Your task to perform on an android device: Open Google Chrome Image 0: 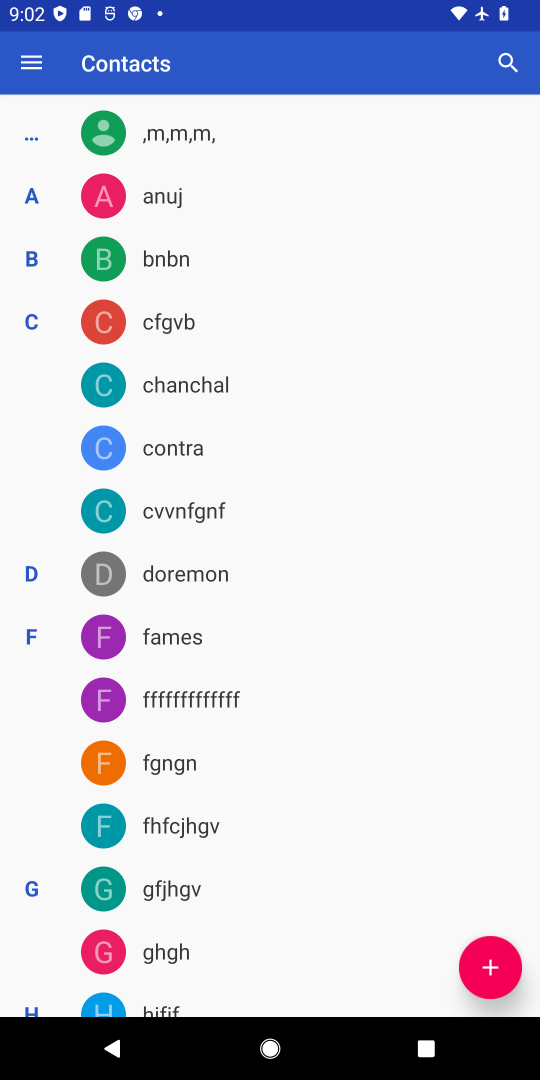
Step 0: press home button
Your task to perform on an android device: Open Google Chrome Image 1: 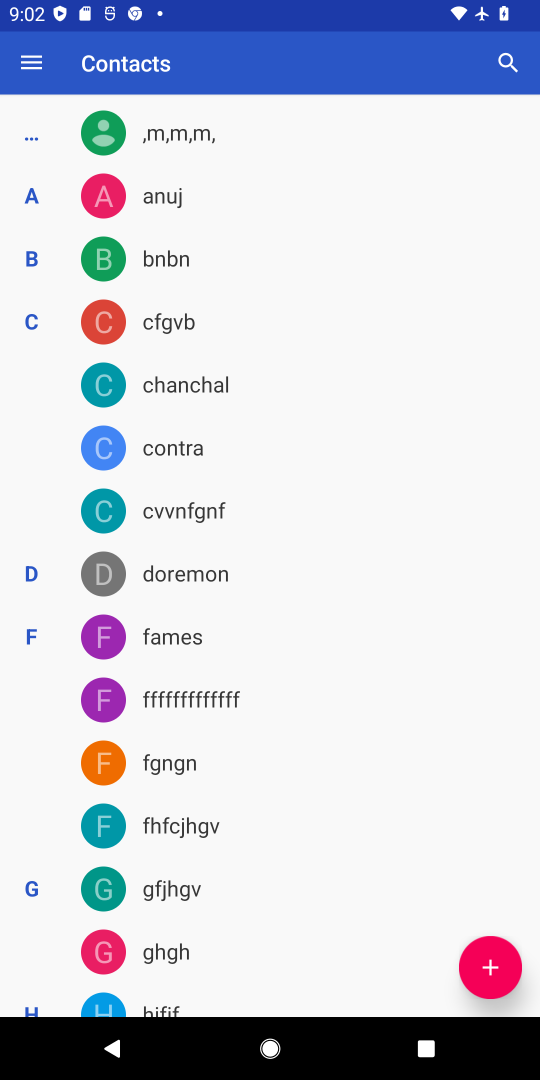
Step 1: press home button
Your task to perform on an android device: Open Google Chrome Image 2: 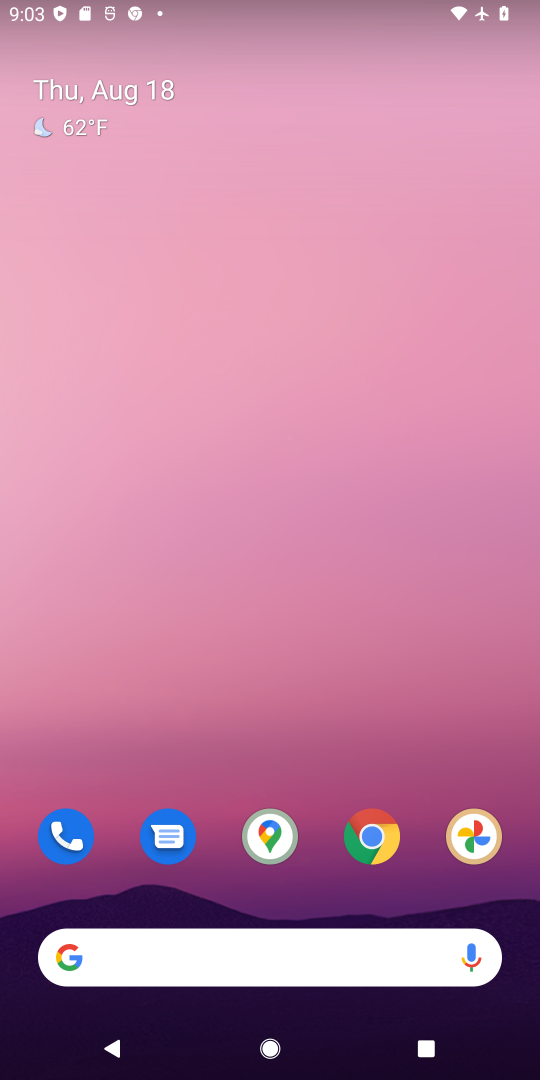
Step 2: drag from (406, 767) to (375, 39)
Your task to perform on an android device: Open Google Chrome Image 3: 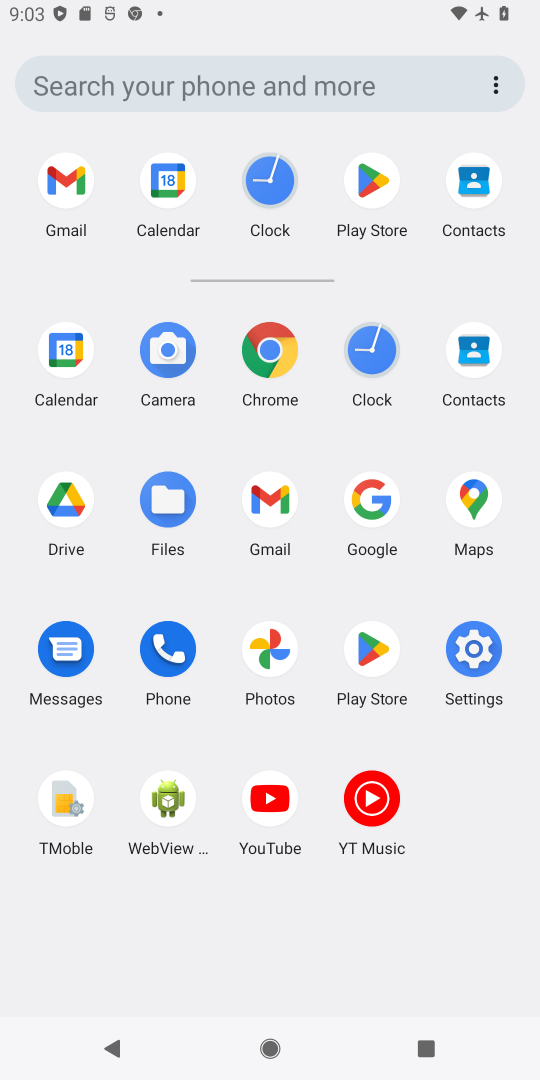
Step 3: click (280, 351)
Your task to perform on an android device: Open Google Chrome Image 4: 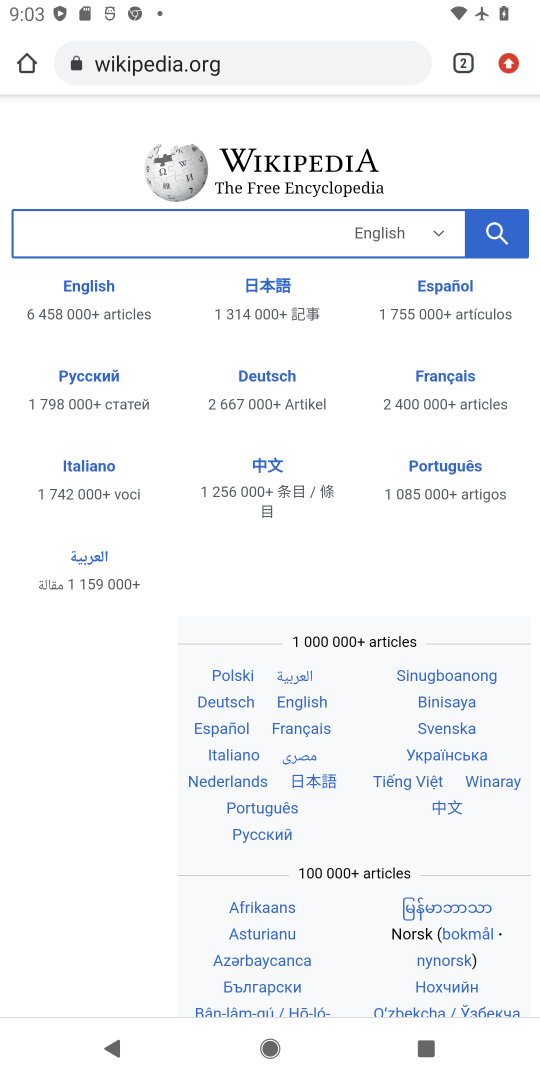
Step 4: task complete